Your task to perform on an android device: stop showing notifications on the lock screen Image 0: 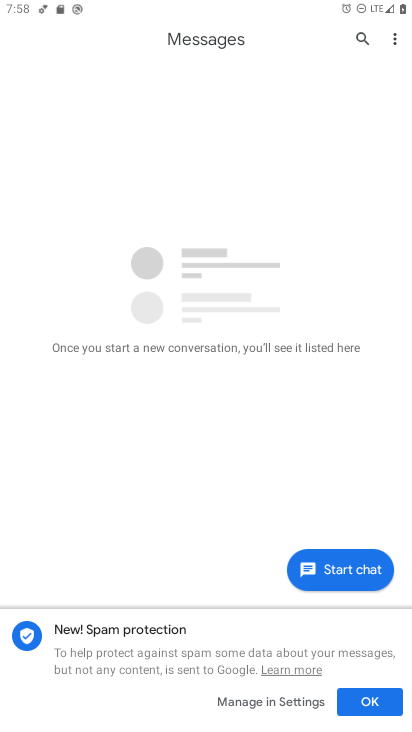
Step 0: press home button
Your task to perform on an android device: stop showing notifications on the lock screen Image 1: 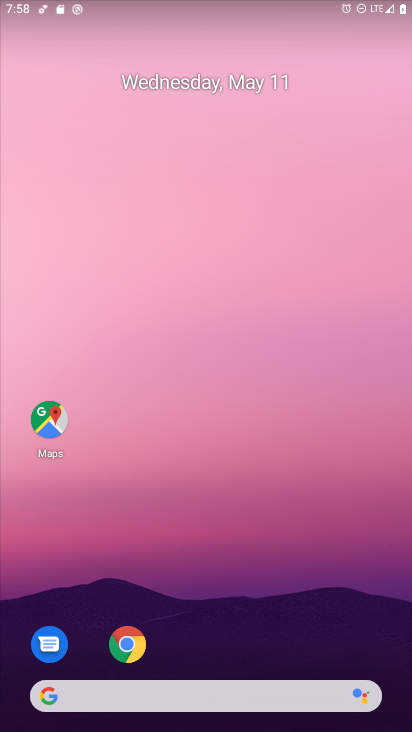
Step 1: drag from (202, 575) to (108, 53)
Your task to perform on an android device: stop showing notifications on the lock screen Image 2: 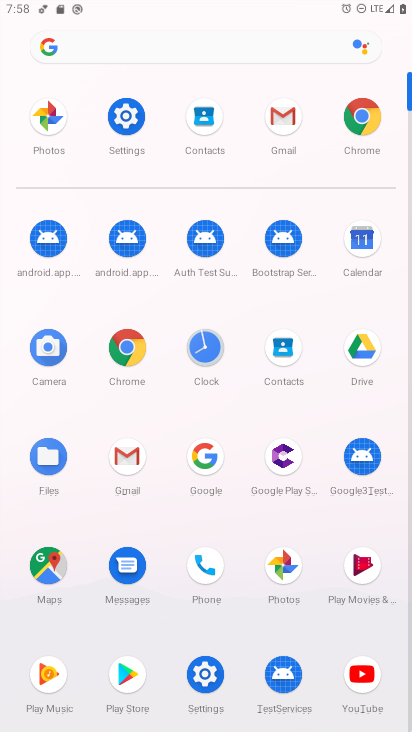
Step 2: click (120, 116)
Your task to perform on an android device: stop showing notifications on the lock screen Image 3: 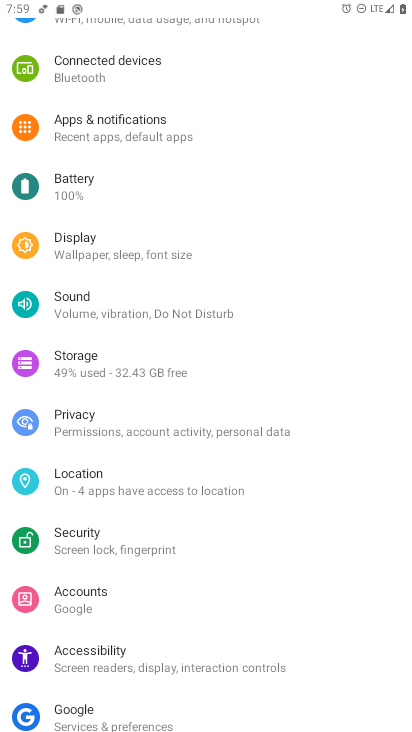
Step 3: click (96, 114)
Your task to perform on an android device: stop showing notifications on the lock screen Image 4: 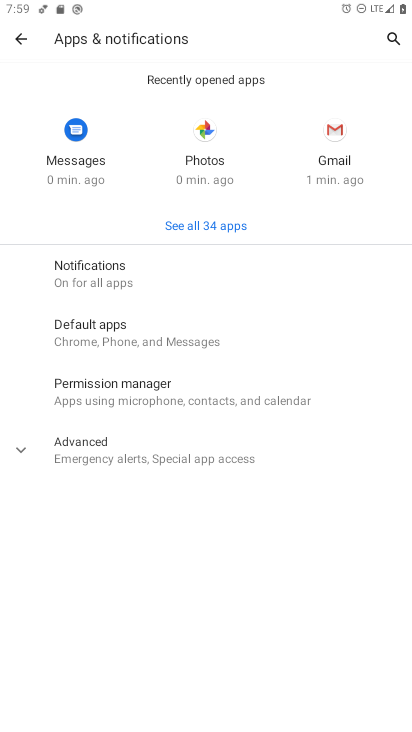
Step 4: click (91, 265)
Your task to perform on an android device: stop showing notifications on the lock screen Image 5: 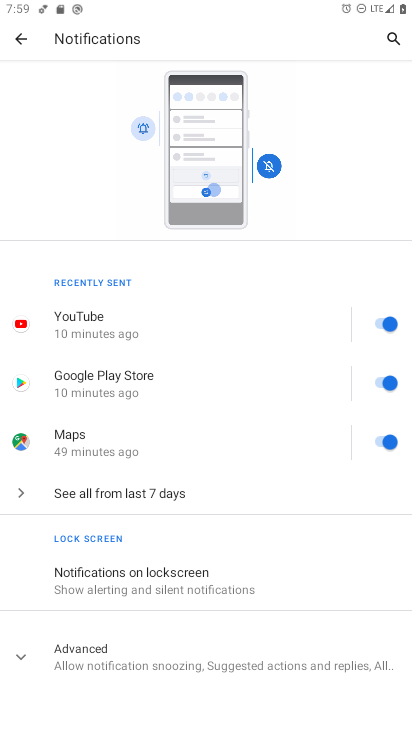
Step 5: click (120, 579)
Your task to perform on an android device: stop showing notifications on the lock screen Image 6: 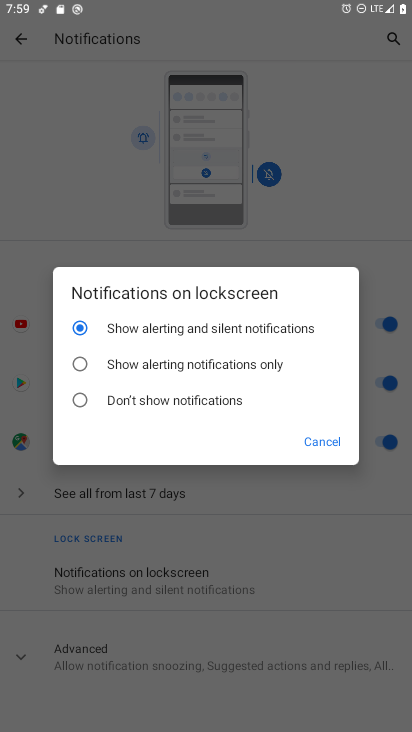
Step 6: click (75, 398)
Your task to perform on an android device: stop showing notifications on the lock screen Image 7: 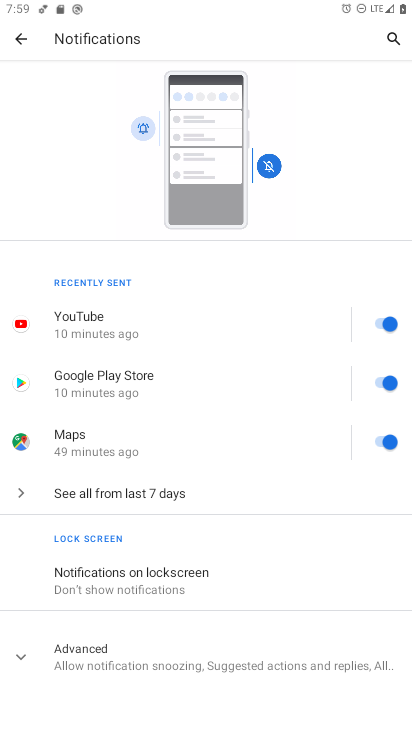
Step 7: task complete